Your task to perform on an android device: toggle notifications settings in the gmail app Image 0: 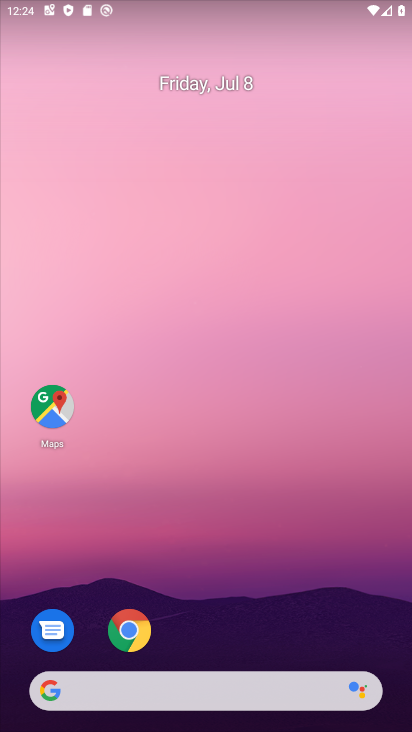
Step 0: drag from (401, 620) to (282, 59)
Your task to perform on an android device: toggle notifications settings in the gmail app Image 1: 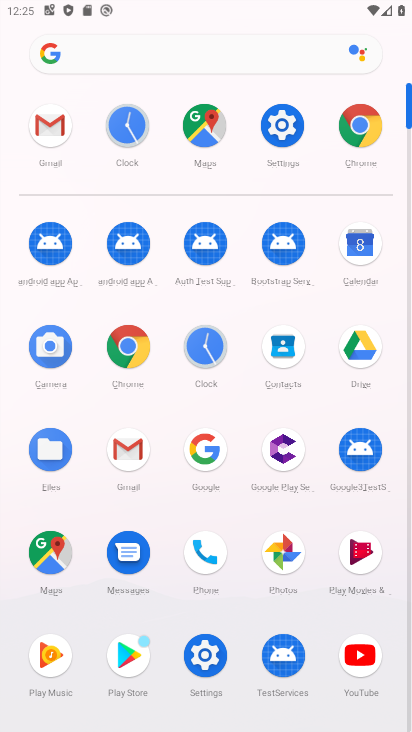
Step 1: click (137, 437)
Your task to perform on an android device: toggle notifications settings in the gmail app Image 2: 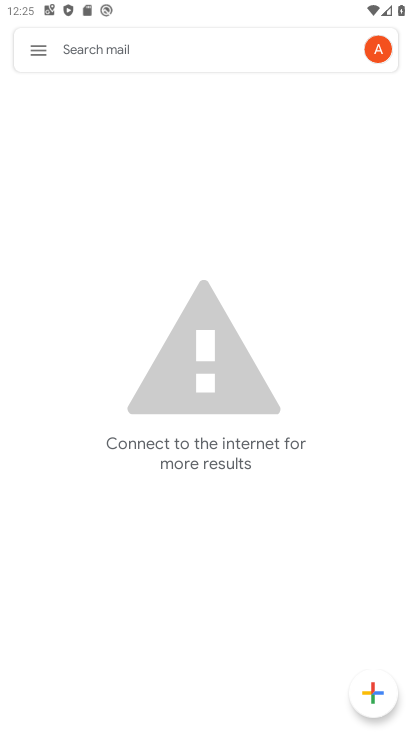
Step 2: click (34, 47)
Your task to perform on an android device: toggle notifications settings in the gmail app Image 3: 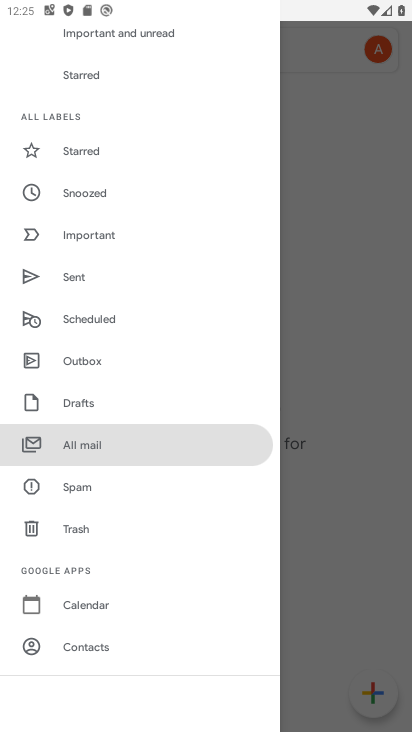
Step 3: drag from (72, 627) to (98, 89)
Your task to perform on an android device: toggle notifications settings in the gmail app Image 4: 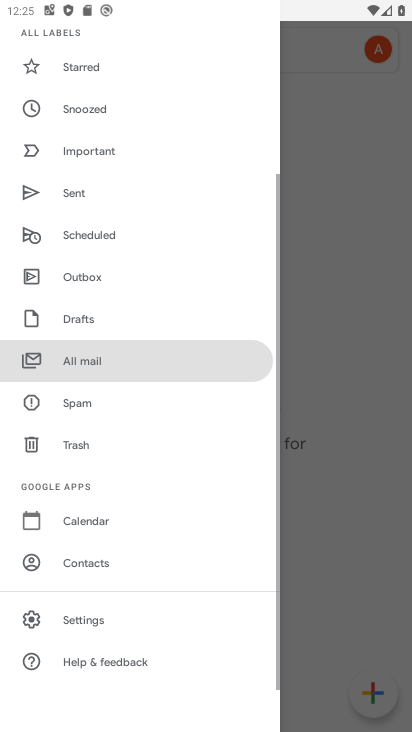
Step 4: click (72, 619)
Your task to perform on an android device: toggle notifications settings in the gmail app Image 5: 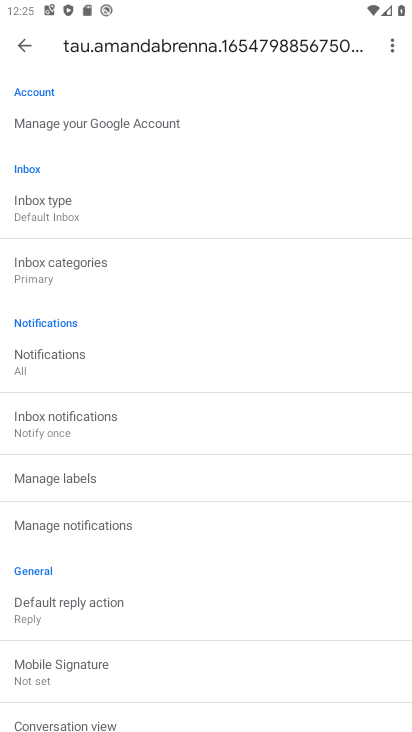
Step 5: click (72, 374)
Your task to perform on an android device: toggle notifications settings in the gmail app Image 6: 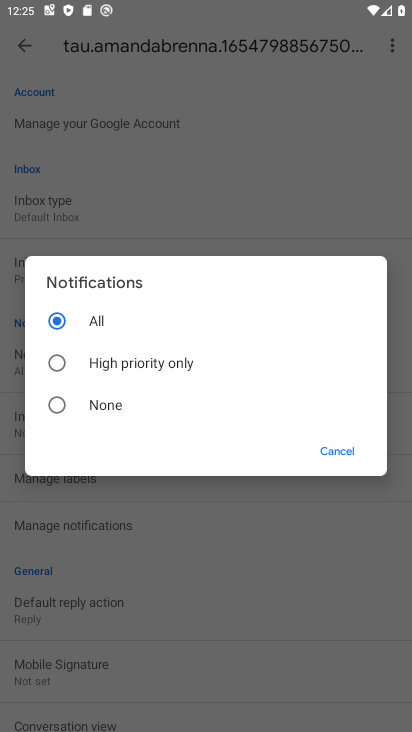
Step 6: click (54, 402)
Your task to perform on an android device: toggle notifications settings in the gmail app Image 7: 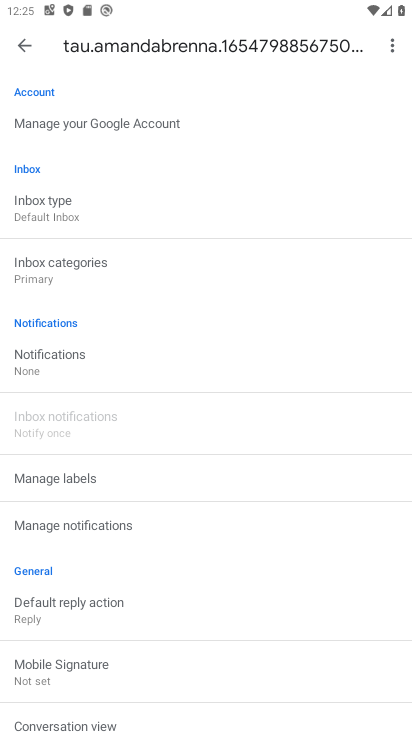
Step 7: task complete